Your task to perform on an android device: visit the assistant section in the google photos Image 0: 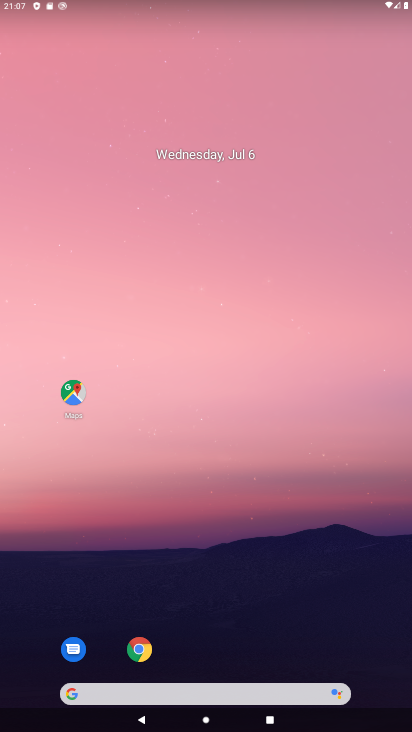
Step 0: drag from (172, 575) to (209, 168)
Your task to perform on an android device: visit the assistant section in the google photos Image 1: 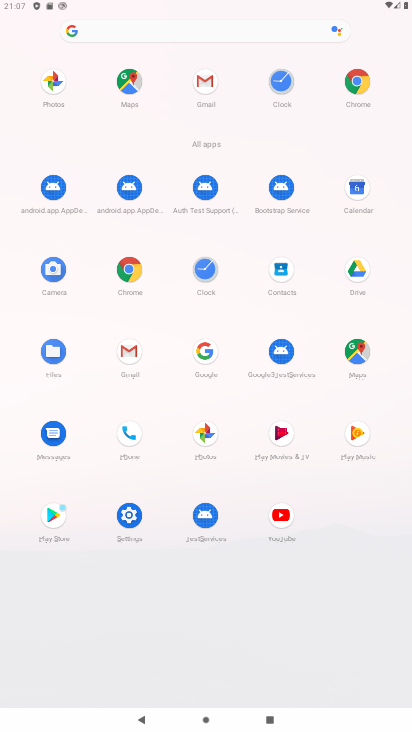
Step 1: click (210, 437)
Your task to perform on an android device: visit the assistant section in the google photos Image 2: 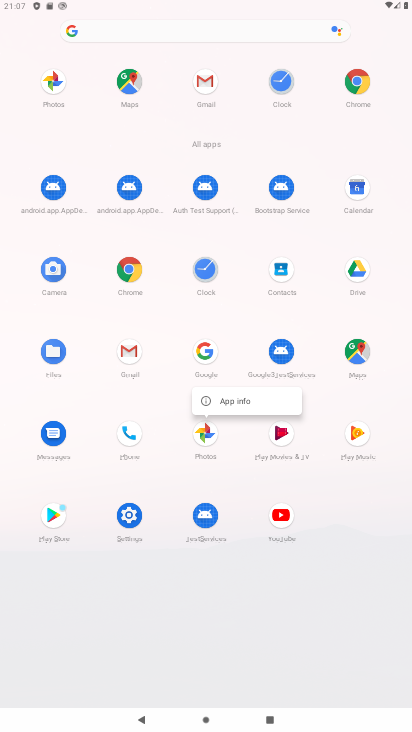
Step 2: click (233, 394)
Your task to perform on an android device: visit the assistant section in the google photos Image 3: 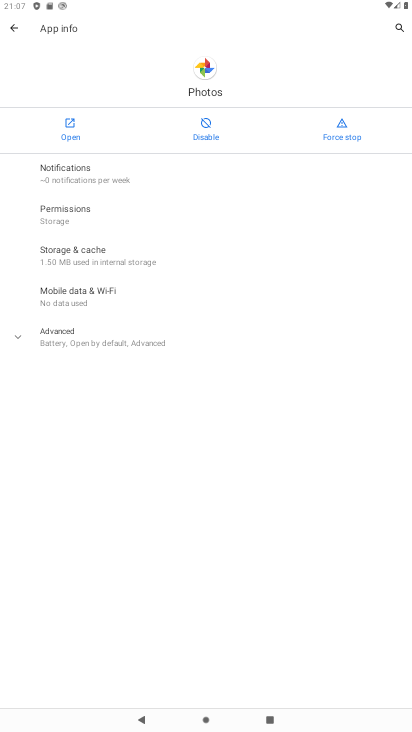
Step 3: click (71, 121)
Your task to perform on an android device: visit the assistant section in the google photos Image 4: 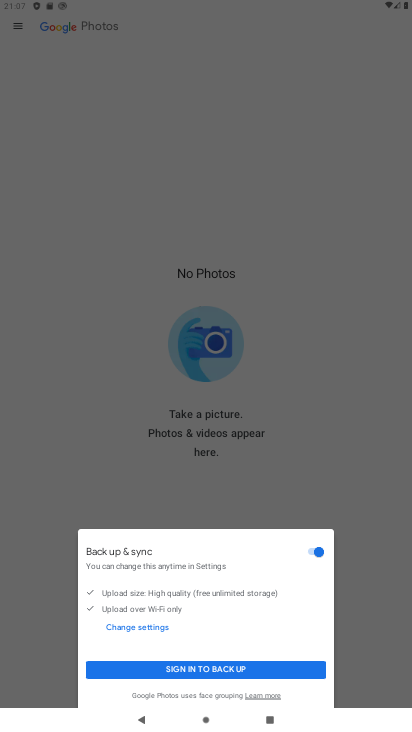
Step 4: drag from (212, 434) to (274, 227)
Your task to perform on an android device: visit the assistant section in the google photos Image 5: 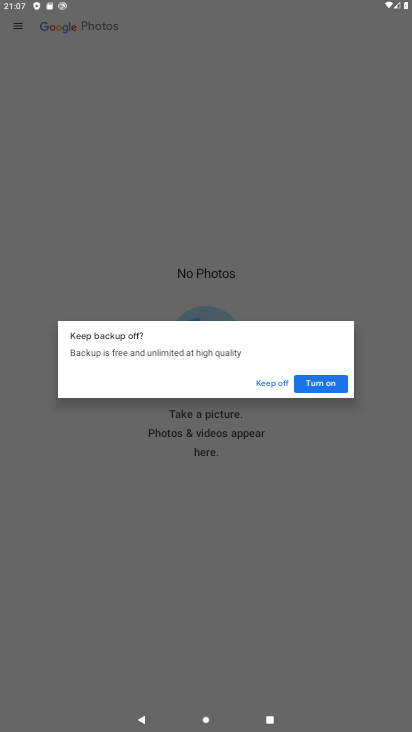
Step 5: click (304, 387)
Your task to perform on an android device: visit the assistant section in the google photos Image 6: 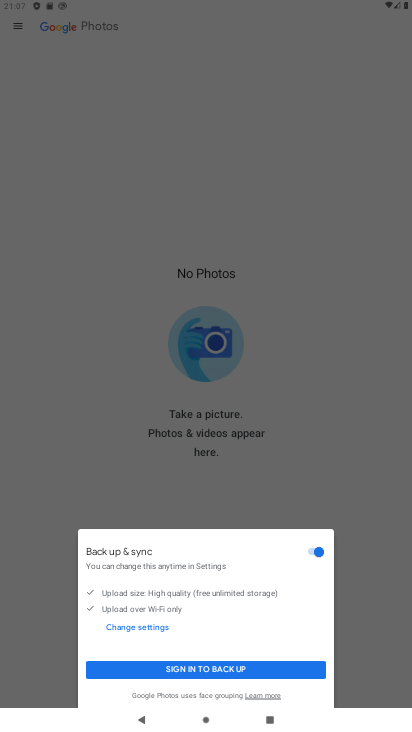
Step 6: click (172, 667)
Your task to perform on an android device: visit the assistant section in the google photos Image 7: 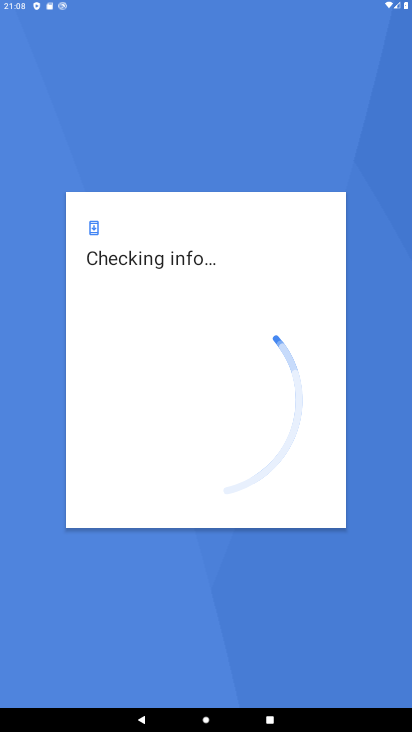
Step 7: task complete